Your task to perform on an android device: Open battery settings Image 0: 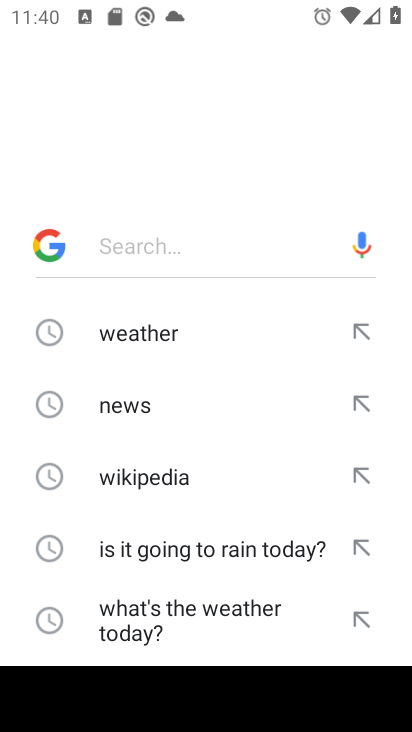
Step 0: press home button
Your task to perform on an android device: Open battery settings Image 1: 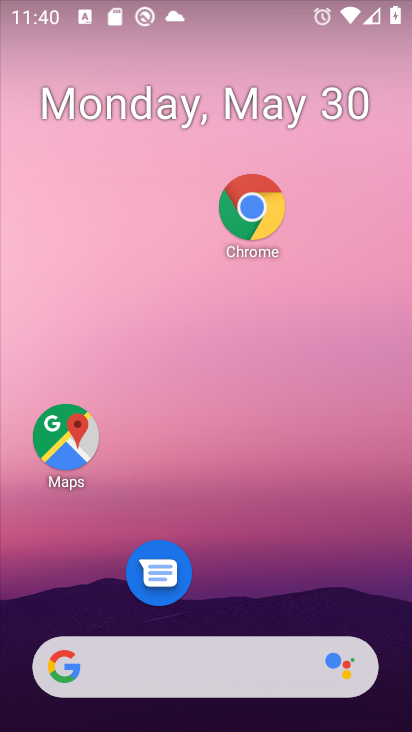
Step 1: drag from (272, 577) to (301, 132)
Your task to perform on an android device: Open battery settings Image 2: 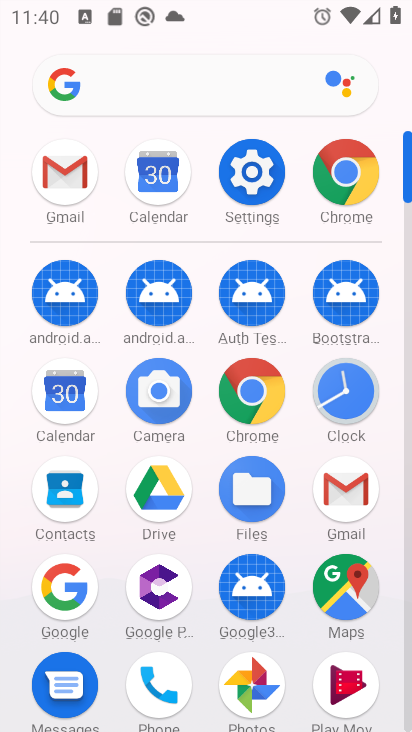
Step 2: click (266, 198)
Your task to perform on an android device: Open battery settings Image 3: 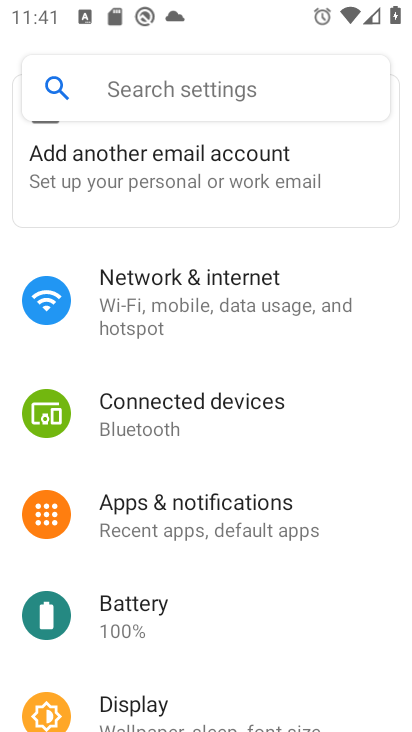
Step 3: drag from (209, 550) to (190, 328)
Your task to perform on an android device: Open battery settings Image 4: 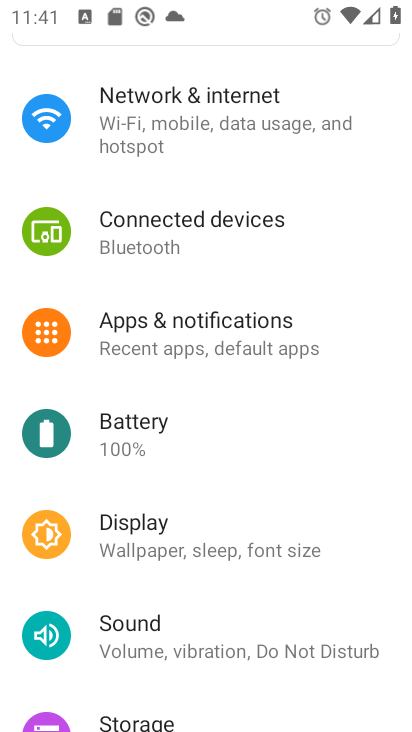
Step 4: click (162, 441)
Your task to perform on an android device: Open battery settings Image 5: 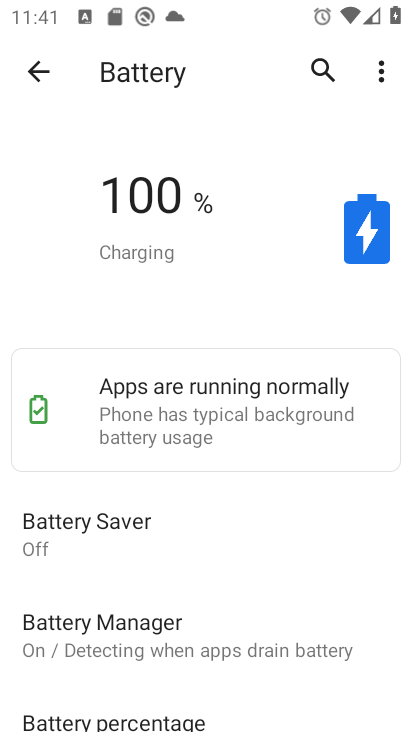
Step 5: task complete